Your task to perform on an android device: change your default location settings in chrome Image 0: 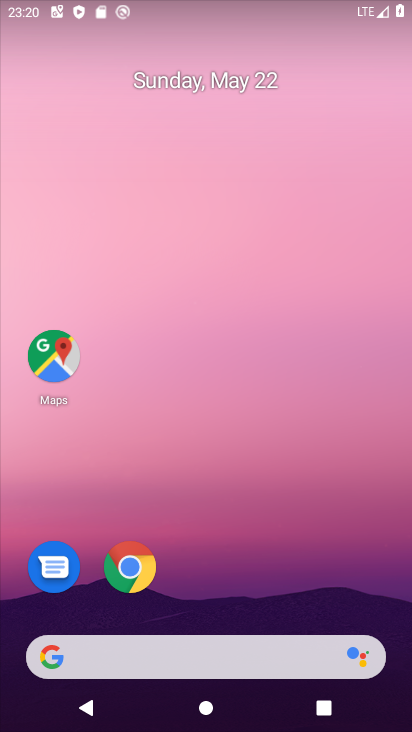
Step 0: drag from (244, 480) to (205, 3)
Your task to perform on an android device: change your default location settings in chrome Image 1: 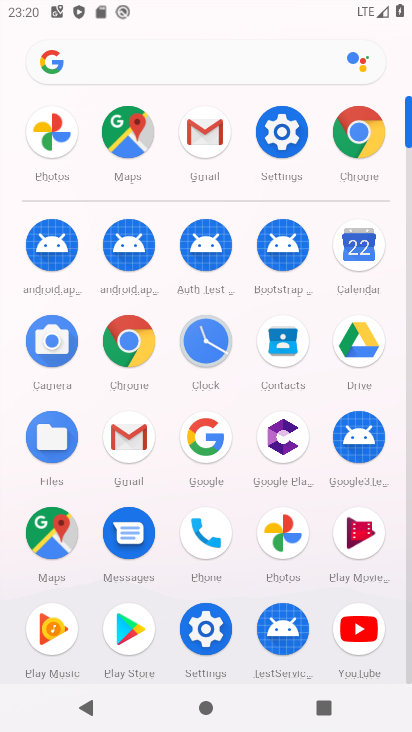
Step 1: drag from (15, 507) to (14, 155)
Your task to perform on an android device: change your default location settings in chrome Image 2: 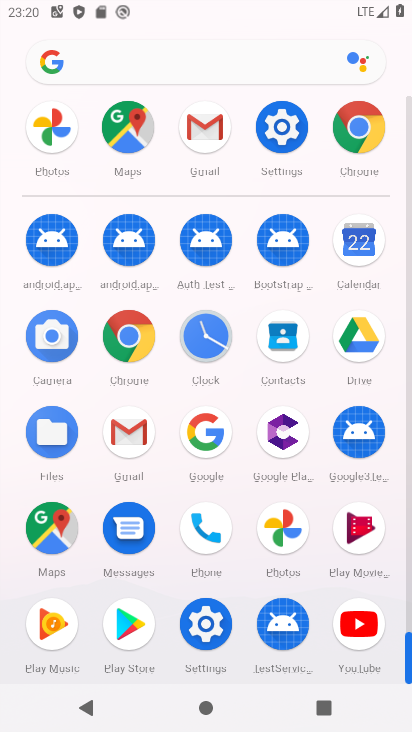
Step 2: click (129, 337)
Your task to perform on an android device: change your default location settings in chrome Image 3: 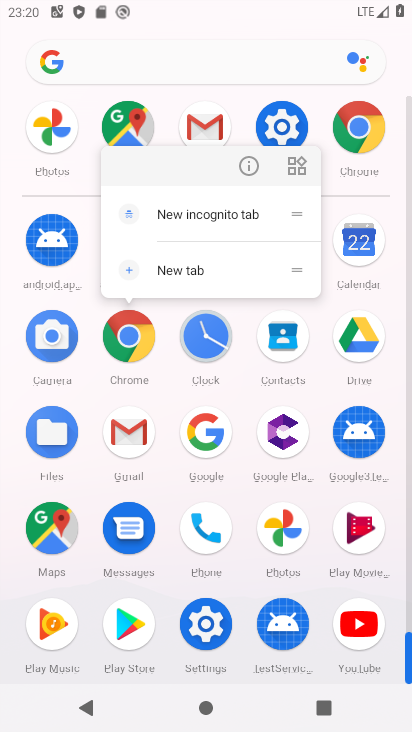
Step 3: click (129, 338)
Your task to perform on an android device: change your default location settings in chrome Image 4: 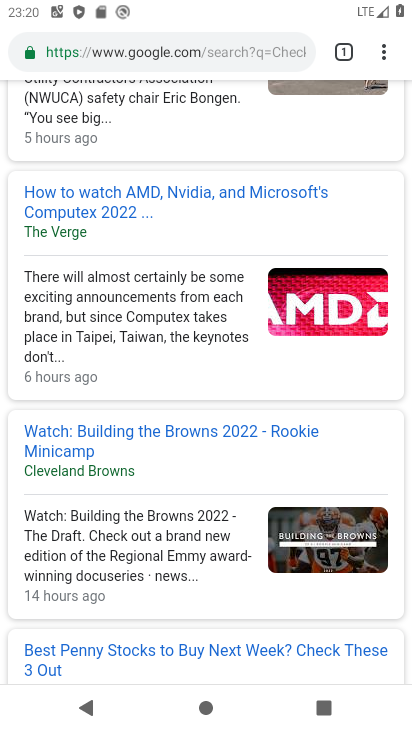
Step 4: task complete